Your task to perform on an android device: See recent photos Image 0: 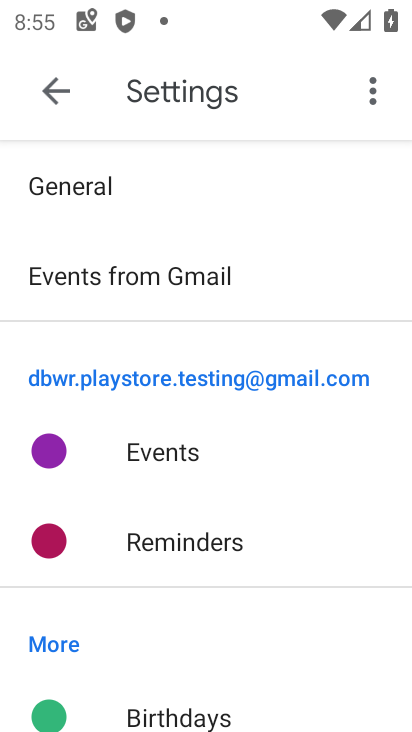
Step 0: press home button
Your task to perform on an android device: See recent photos Image 1: 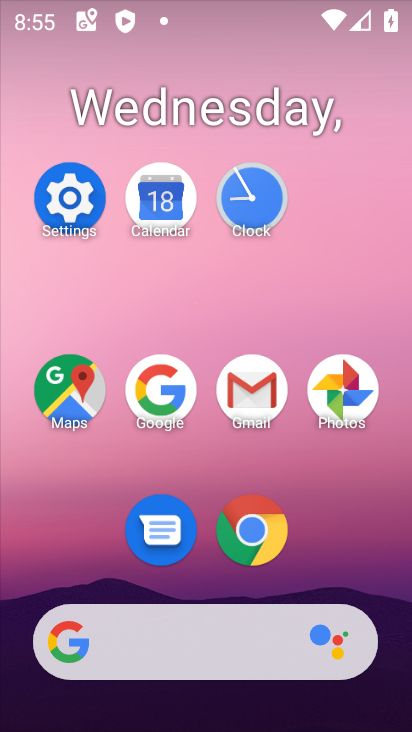
Step 1: click (323, 382)
Your task to perform on an android device: See recent photos Image 2: 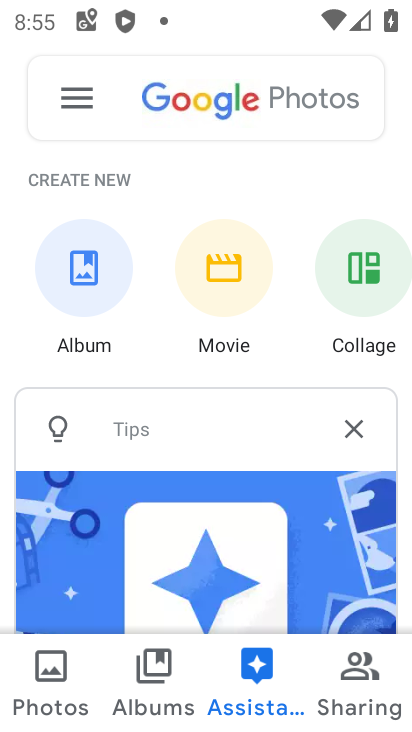
Step 2: click (85, 680)
Your task to perform on an android device: See recent photos Image 3: 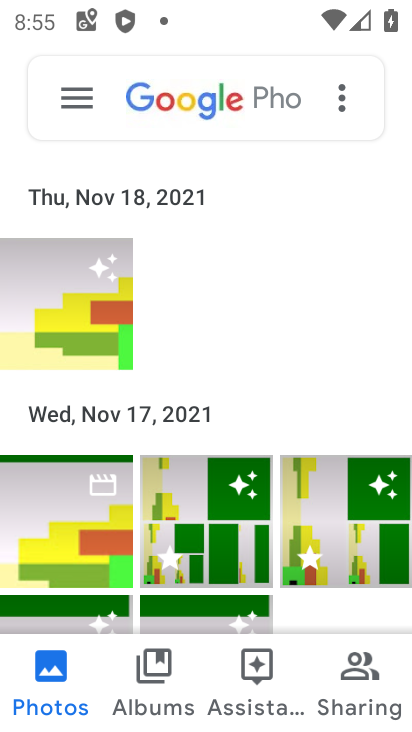
Step 3: task complete